Your task to perform on an android device: What's the latest video from GameSpot News? Image 0: 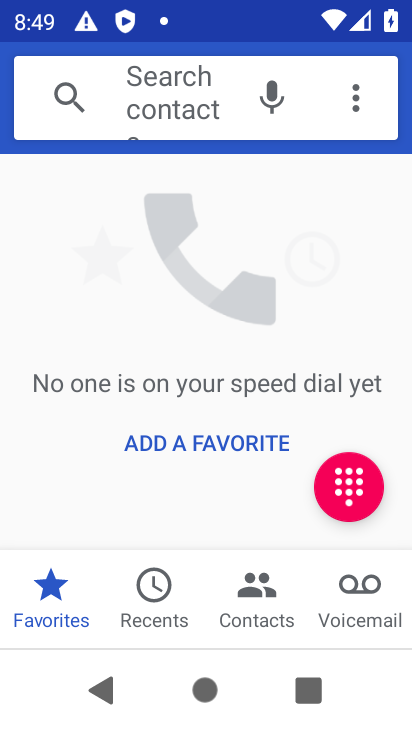
Step 0: press home button
Your task to perform on an android device: What's the latest video from GameSpot News? Image 1: 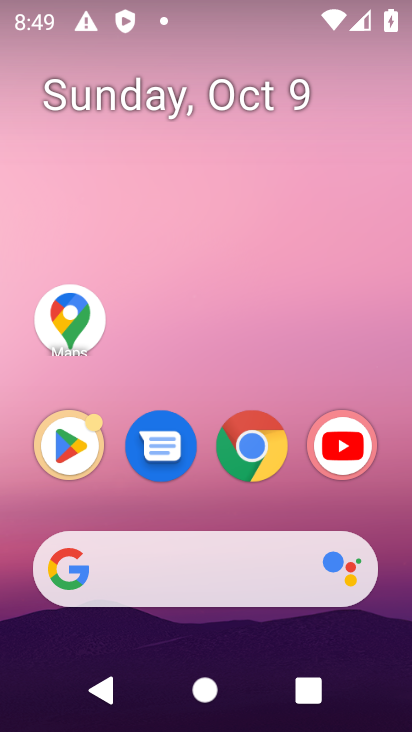
Step 1: click (259, 470)
Your task to perform on an android device: What's the latest video from GameSpot News? Image 2: 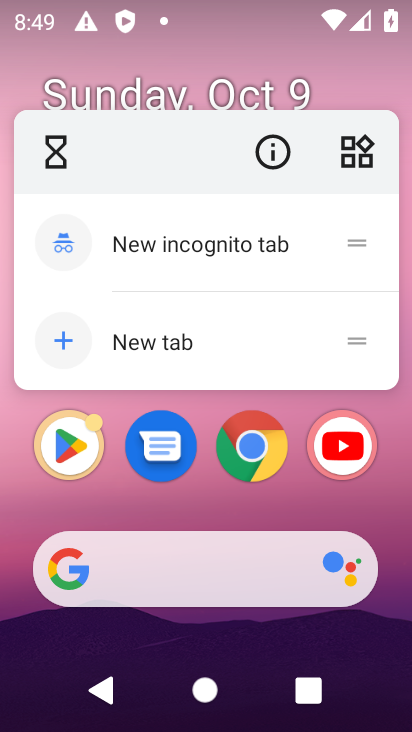
Step 2: click (259, 448)
Your task to perform on an android device: What's the latest video from GameSpot News? Image 3: 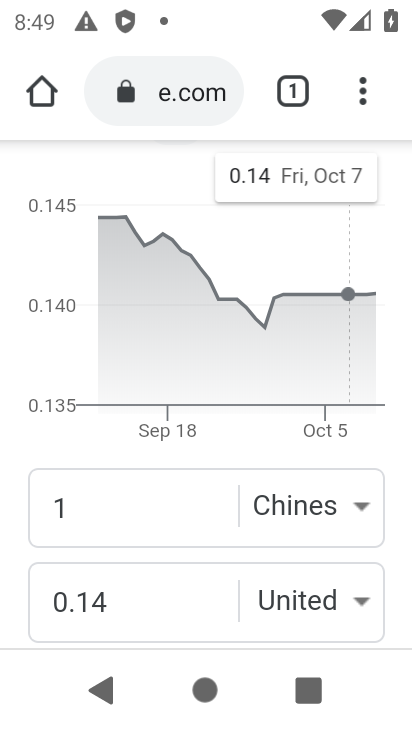
Step 3: click (173, 113)
Your task to perform on an android device: What's the latest video from GameSpot News? Image 4: 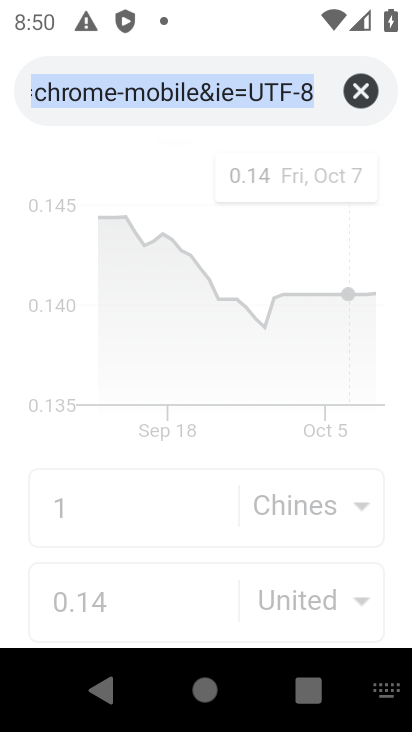
Step 4: type "latest video from GameSpot News"
Your task to perform on an android device: What's the latest video from GameSpot News? Image 5: 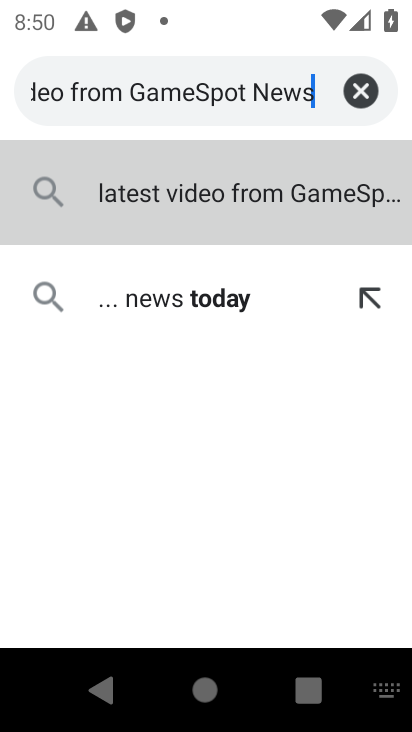
Step 5: type ""
Your task to perform on an android device: What's the latest video from GameSpot News? Image 6: 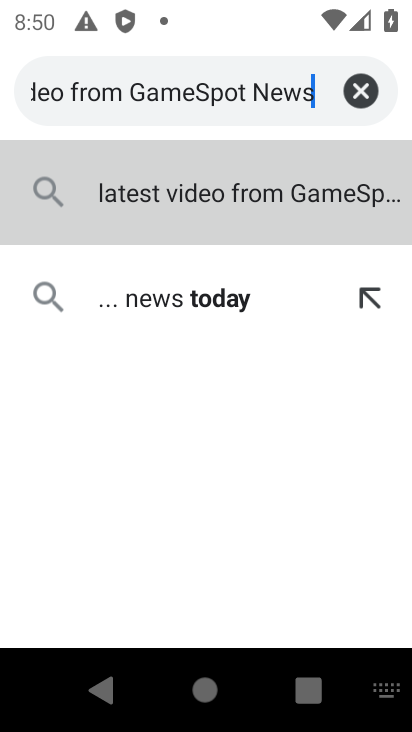
Step 6: press enter
Your task to perform on an android device: What's the latest video from GameSpot News? Image 7: 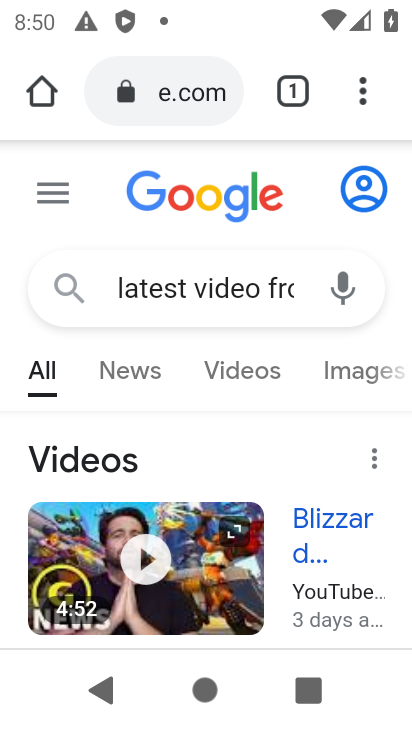
Step 7: drag from (250, 494) to (278, 171)
Your task to perform on an android device: What's the latest video from GameSpot News? Image 8: 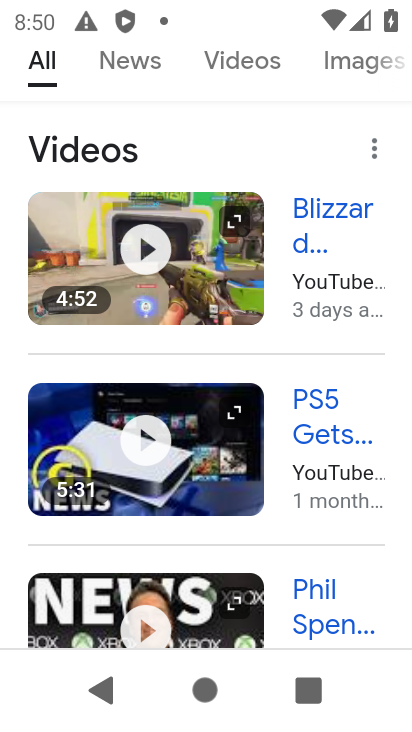
Step 8: click (234, 58)
Your task to perform on an android device: What's the latest video from GameSpot News? Image 9: 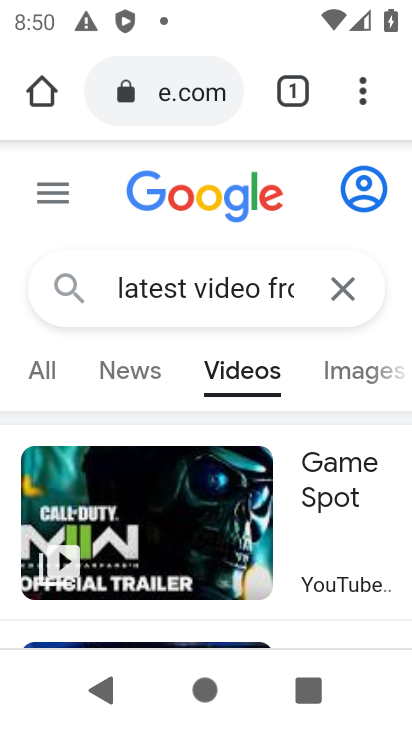
Step 9: click (159, 507)
Your task to perform on an android device: What's the latest video from GameSpot News? Image 10: 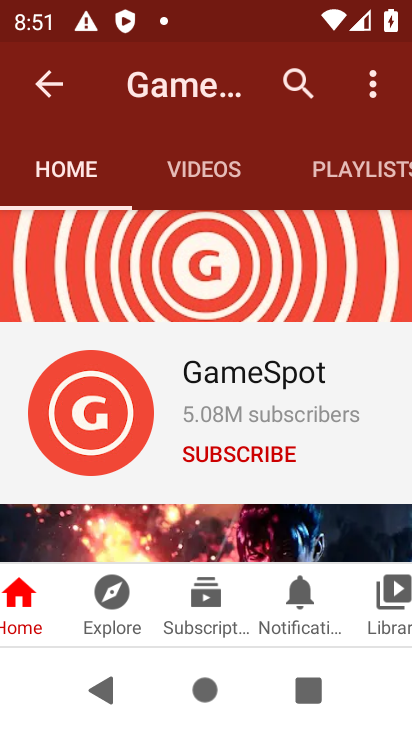
Step 10: click (196, 165)
Your task to perform on an android device: What's the latest video from GameSpot News? Image 11: 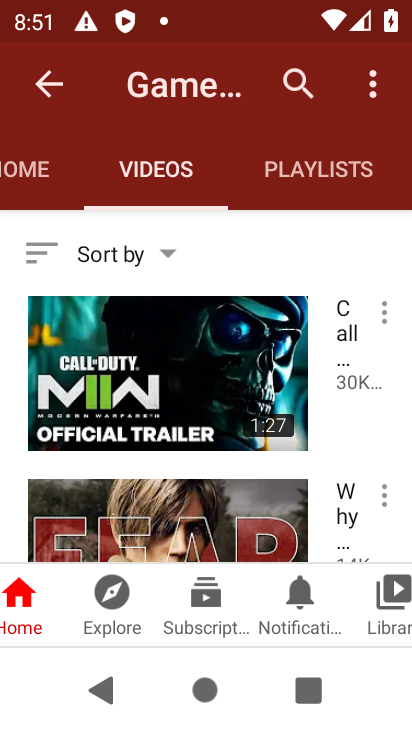
Step 11: click (199, 380)
Your task to perform on an android device: What's the latest video from GameSpot News? Image 12: 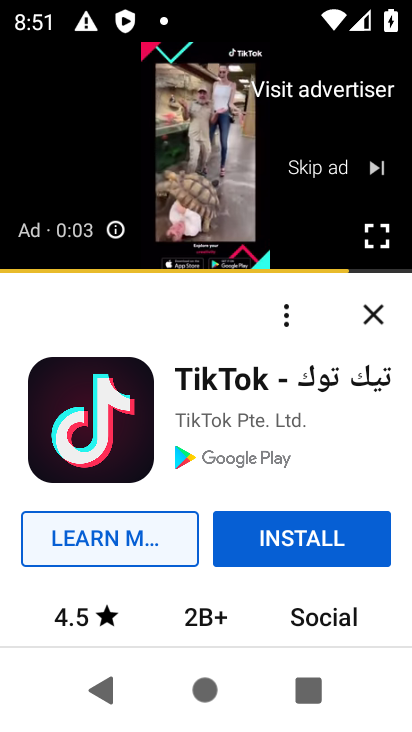
Step 12: click (332, 173)
Your task to perform on an android device: What's the latest video from GameSpot News? Image 13: 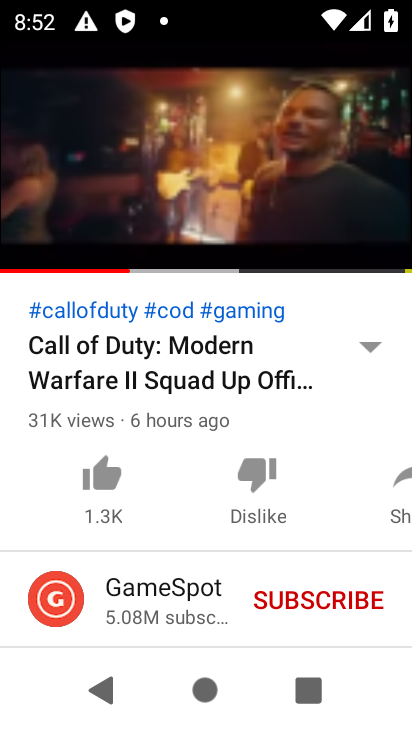
Step 13: task complete